Your task to perform on an android device: Open calendar and show me the fourth week of next month Image 0: 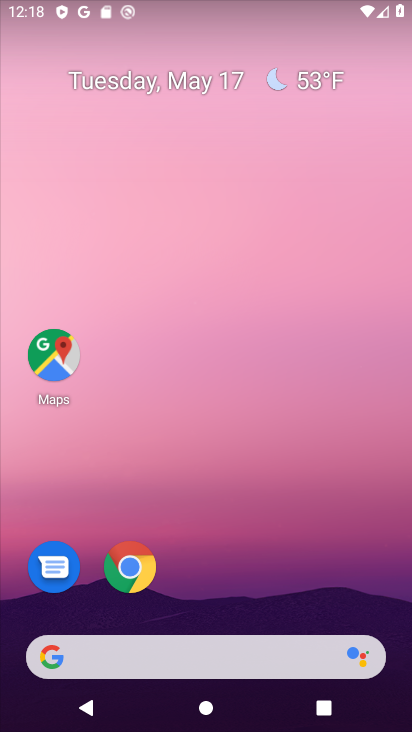
Step 0: drag from (378, 576) to (358, 139)
Your task to perform on an android device: Open calendar and show me the fourth week of next month Image 1: 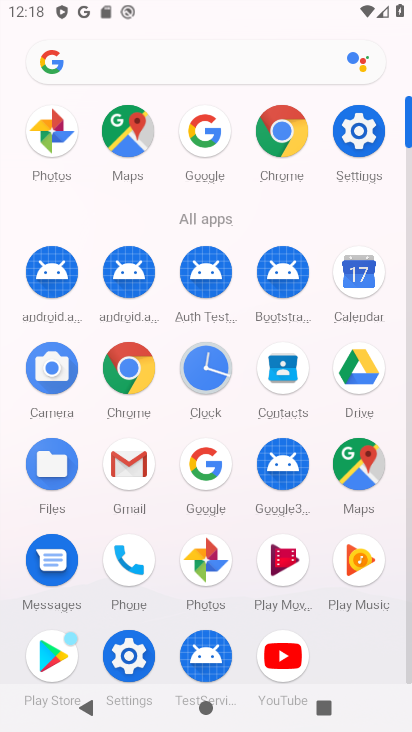
Step 1: click (355, 278)
Your task to perform on an android device: Open calendar and show me the fourth week of next month Image 2: 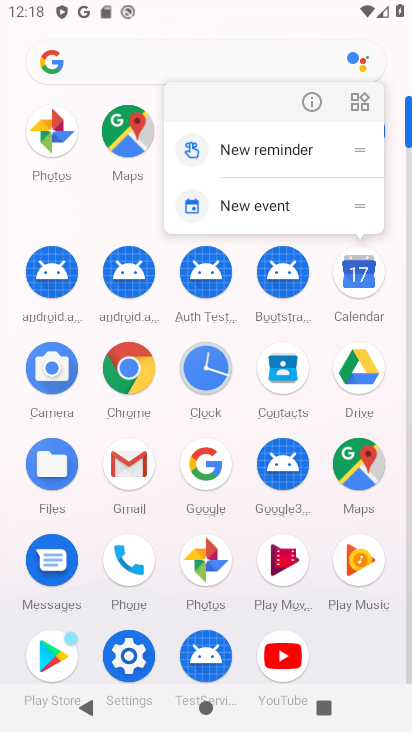
Step 2: click (371, 279)
Your task to perform on an android device: Open calendar and show me the fourth week of next month Image 3: 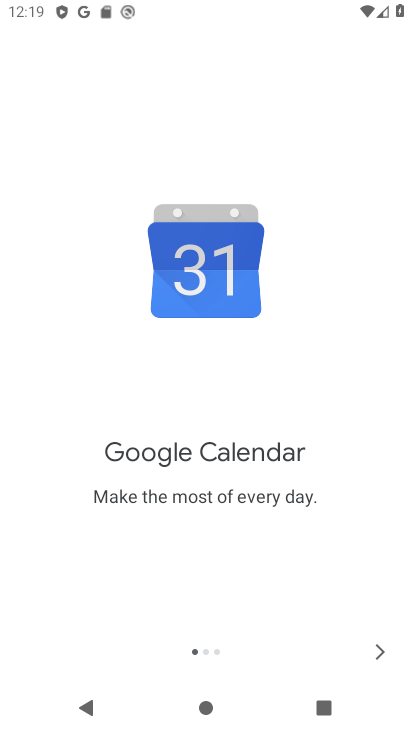
Step 3: click (385, 661)
Your task to perform on an android device: Open calendar and show me the fourth week of next month Image 4: 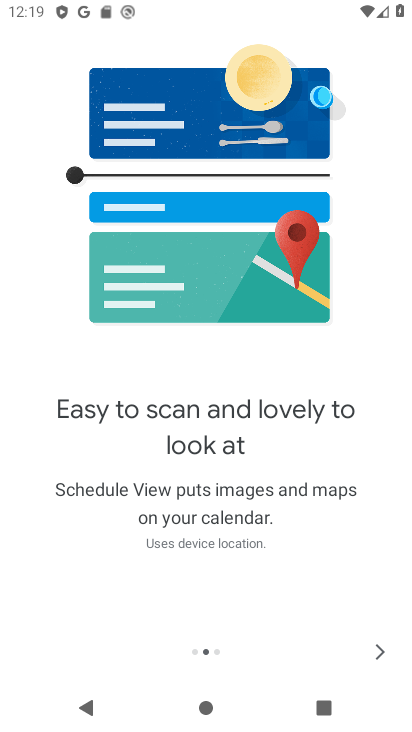
Step 4: click (386, 659)
Your task to perform on an android device: Open calendar and show me the fourth week of next month Image 5: 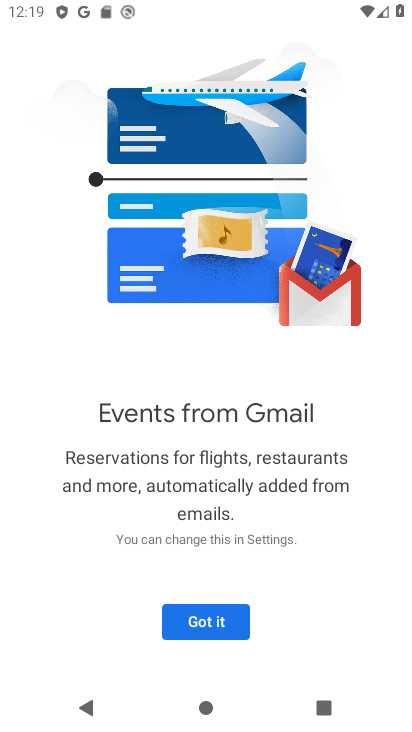
Step 5: click (200, 619)
Your task to perform on an android device: Open calendar and show me the fourth week of next month Image 6: 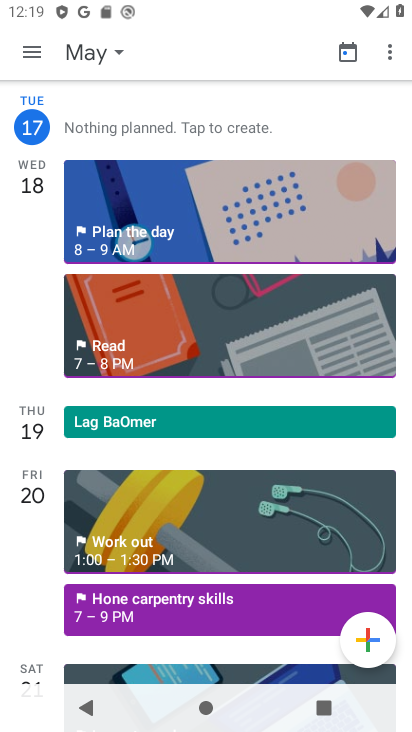
Step 6: click (119, 50)
Your task to perform on an android device: Open calendar and show me the fourth week of next month Image 7: 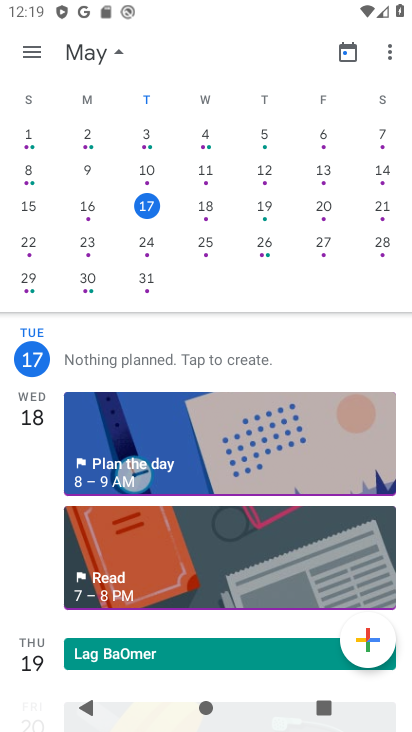
Step 7: drag from (393, 218) to (9, 196)
Your task to perform on an android device: Open calendar and show me the fourth week of next month Image 8: 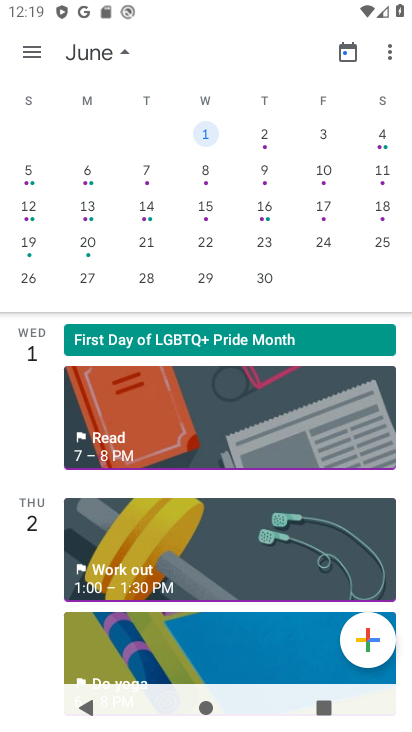
Step 8: click (150, 243)
Your task to perform on an android device: Open calendar and show me the fourth week of next month Image 9: 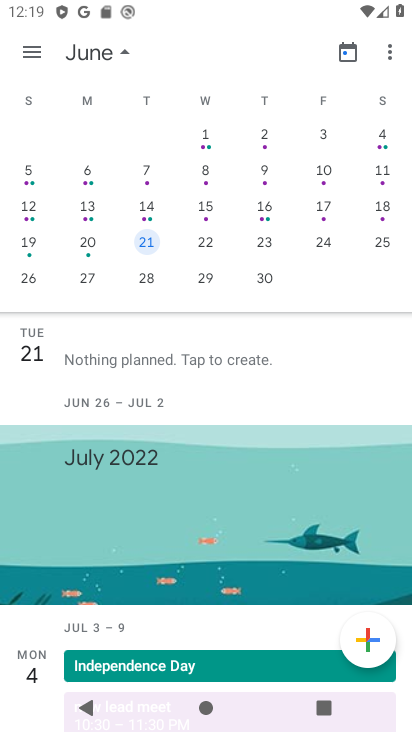
Step 9: task complete